Your task to perform on an android device: change timer sound Image 0: 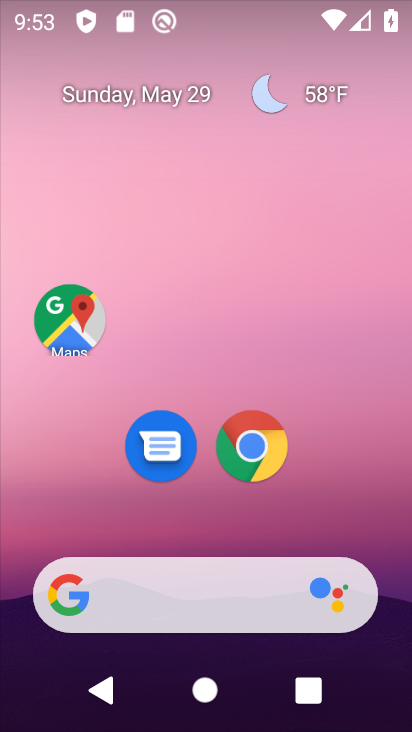
Step 0: drag from (355, 485) to (239, 0)
Your task to perform on an android device: change timer sound Image 1: 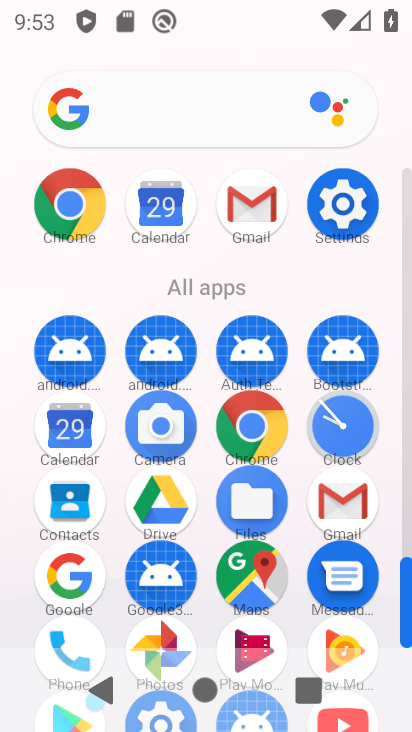
Step 1: click (17, 255)
Your task to perform on an android device: change timer sound Image 2: 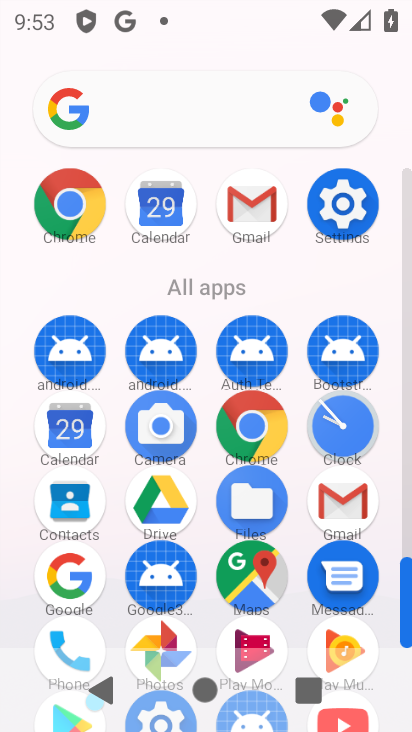
Step 2: drag from (14, 605) to (14, 274)
Your task to perform on an android device: change timer sound Image 3: 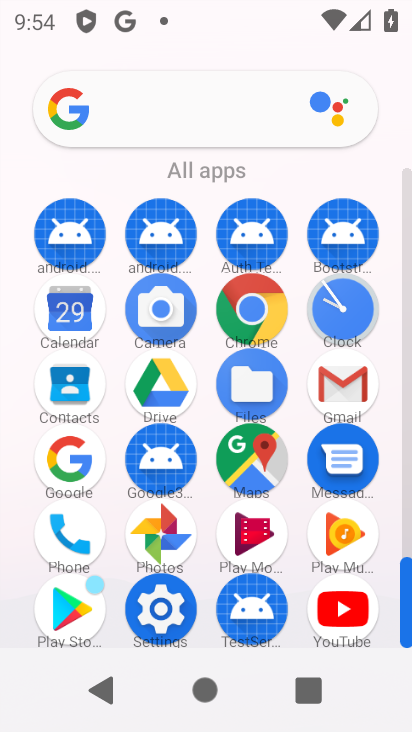
Step 3: click (339, 301)
Your task to perform on an android device: change timer sound Image 4: 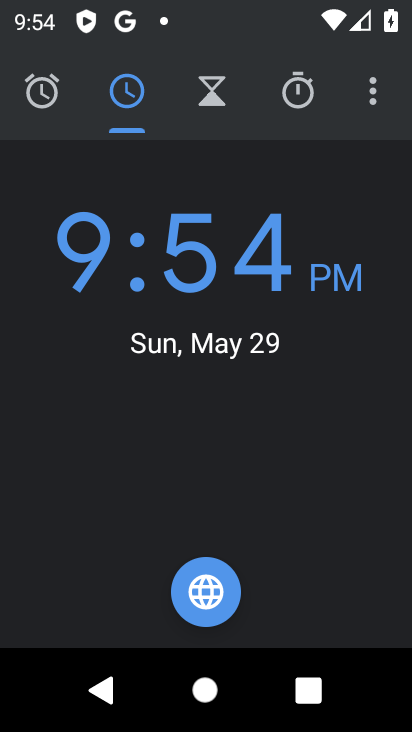
Step 4: drag from (378, 80) to (284, 163)
Your task to perform on an android device: change timer sound Image 5: 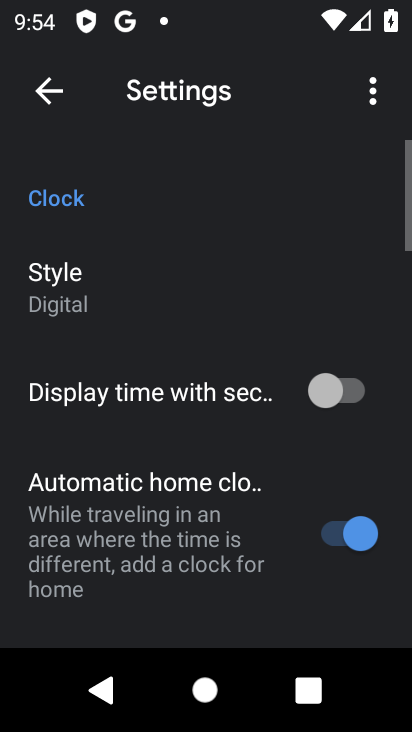
Step 5: drag from (205, 527) to (214, 159)
Your task to perform on an android device: change timer sound Image 6: 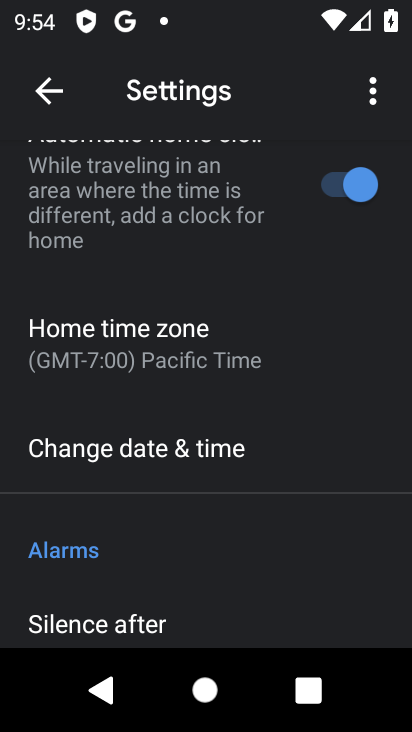
Step 6: drag from (190, 469) to (206, 183)
Your task to perform on an android device: change timer sound Image 7: 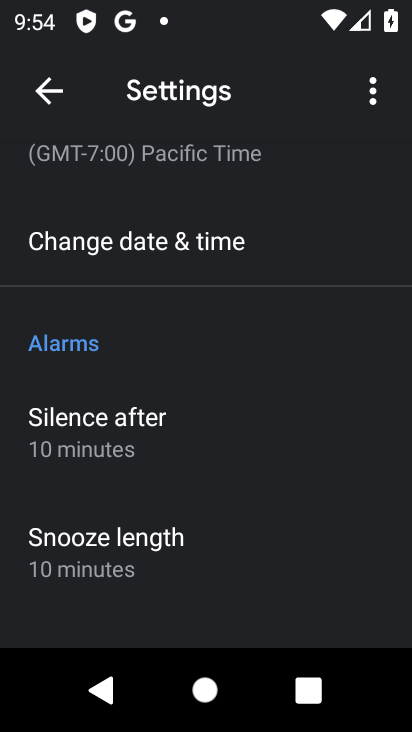
Step 7: drag from (205, 574) to (231, 175)
Your task to perform on an android device: change timer sound Image 8: 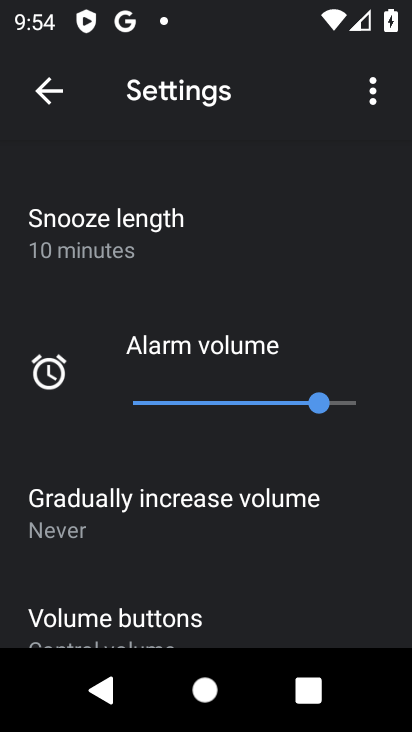
Step 8: drag from (201, 534) to (223, 155)
Your task to perform on an android device: change timer sound Image 9: 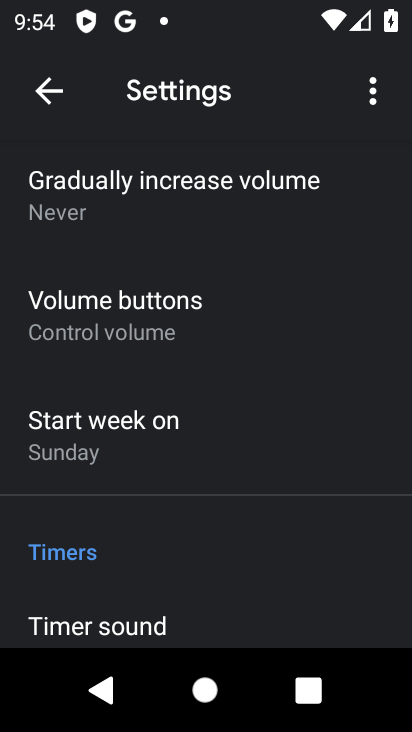
Step 9: drag from (225, 526) to (232, 164)
Your task to perform on an android device: change timer sound Image 10: 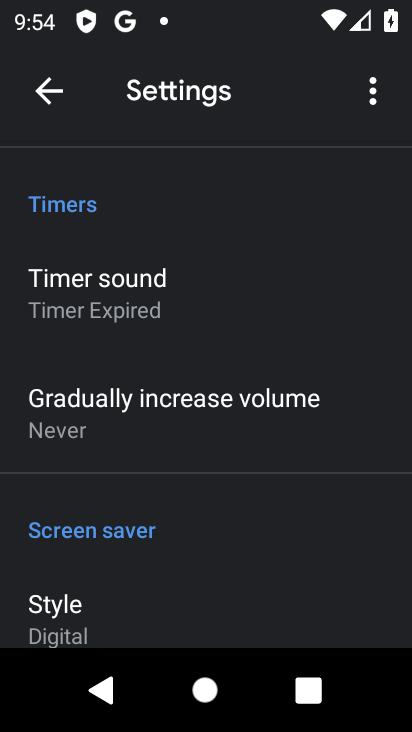
Step 10: click (149, 304)
Your task to perform on an android device: change timer sound Image 11: 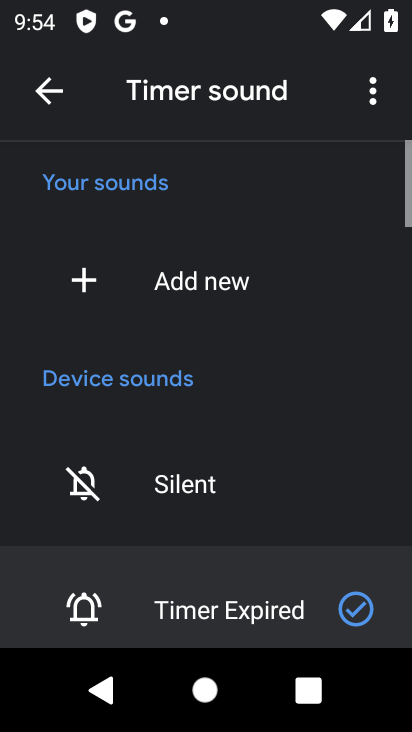
Step 11: drag from (240, 628) to (264, 252)
Your task to perform on an android device: change timer sound Image 12: 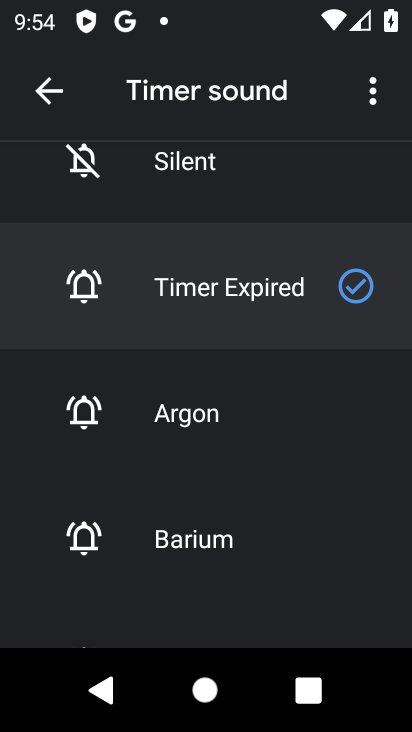
Step 12: click (170, 407)
Your task to perform on an android device: change timer sound Image 13: 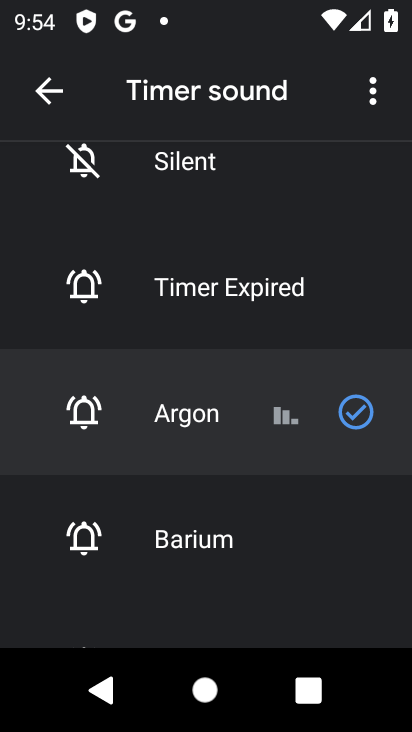
Step 13: task complete